Your task to perform on an android device: Open the phone app and click the voicemail tab. Image 0: 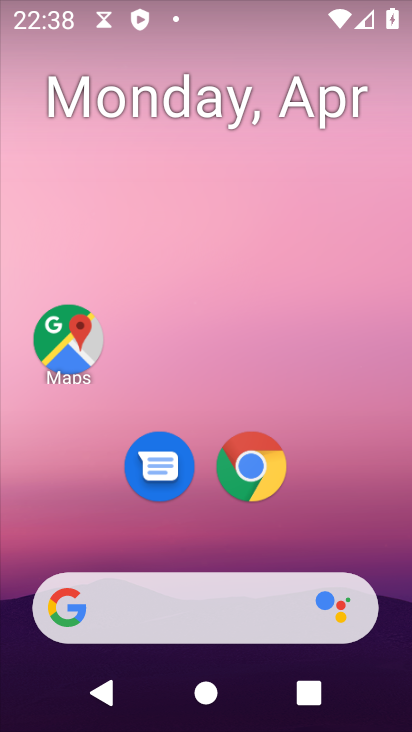
Step 0: drag from (220, 542) to (271, 30)
Your task to perform on an android device: Open the phone app and click the voicemail tab. Image 1: 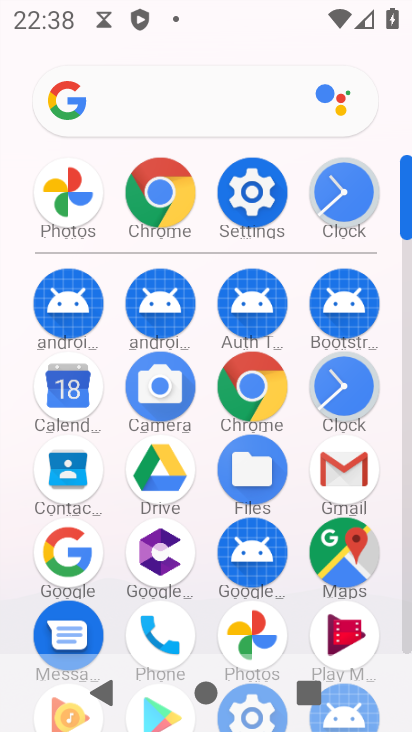
Step 1: drag from (207, 609) to (203, 292)
Your task to perform on an android device: Open the phone app and click the voicemail tab. Image 2: 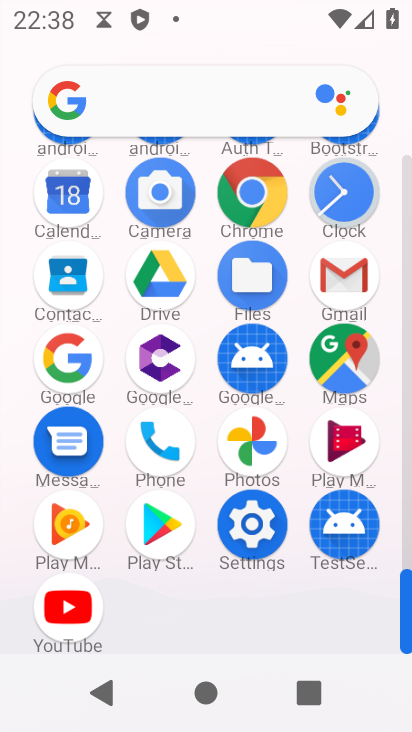
Step 2: click (157, 449)
Your task to perform on an android device: Open the phone app and click the voicemail tab. Image 3: 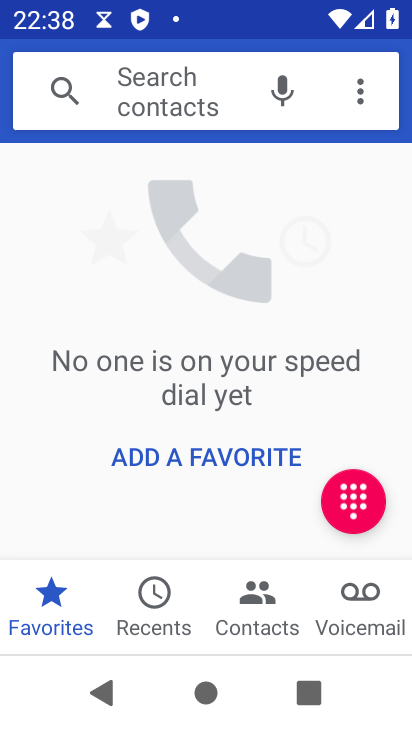
Step 3: click (376, 592)
Your task to perform on an android device: Open the phone app and click the voicemail tab. Image 4: 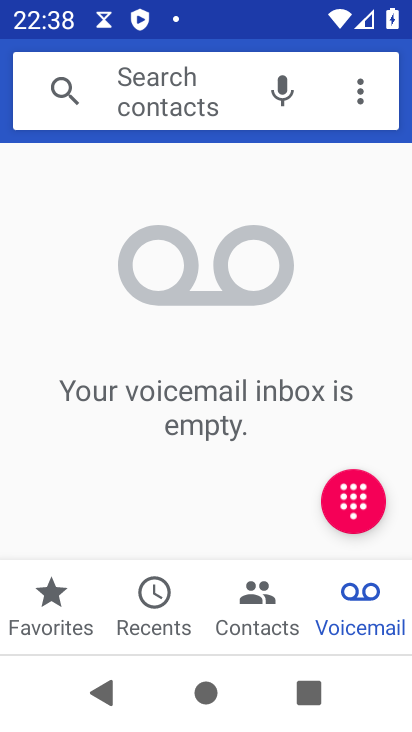
Step 4: task complete